Your task to perform on an android device: Open Google Image 0: 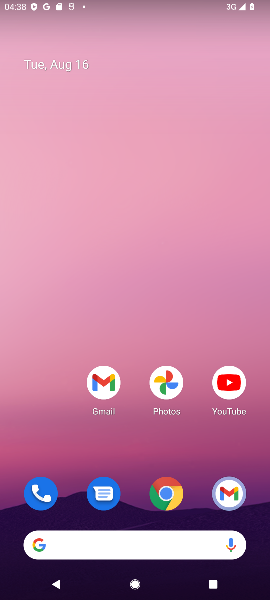
Step 0: drag from (58, 449) to (61, 152)
Your task to perform on an android device: Open Google Image 1: 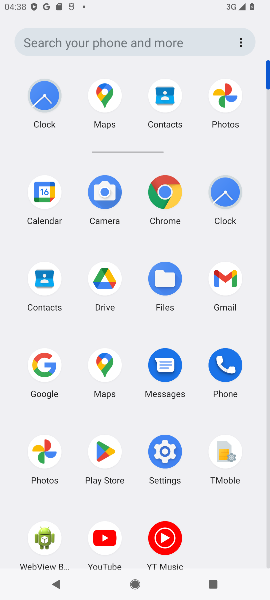
Step 1: click (43, 373)
Your task to perform on an android device: Open Google Image 2: 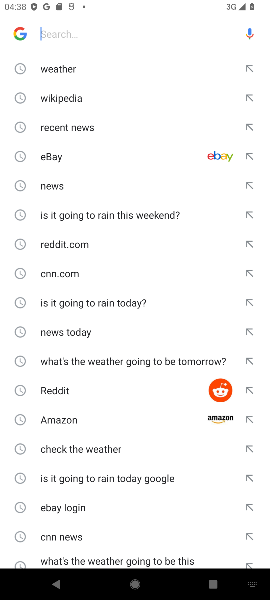
Step 2: task complete